Your task to perform on an android device: toggle pop-ups in chrome Image 0: 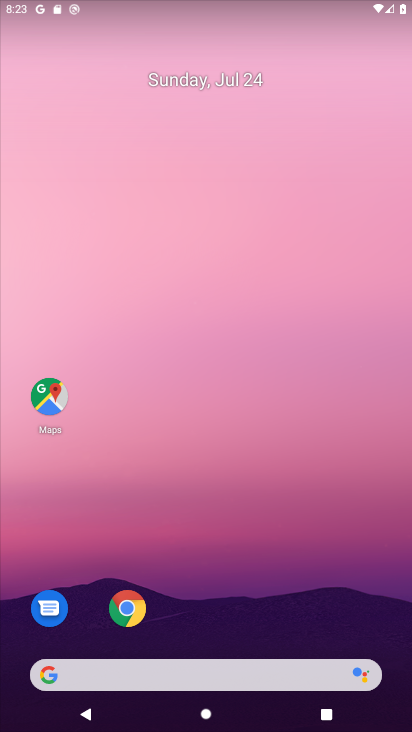
Step 0: click (125, 608)
Your task to perform on an android device: toggle pop-ups in chrome Image 1: 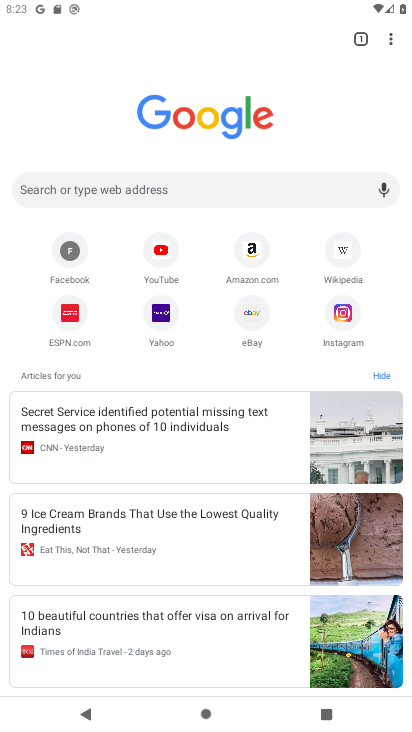
Step 1: click (399, 40)
Your task to perform on an android device: toggle pop-ups in chrome Image 2: 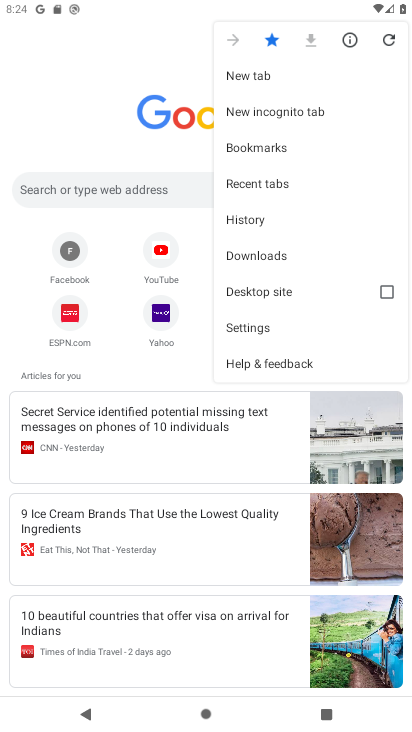
Step 2: click (247, 339)
Your task to perform on an android device: toggle pop-ups in chrome Image 3: 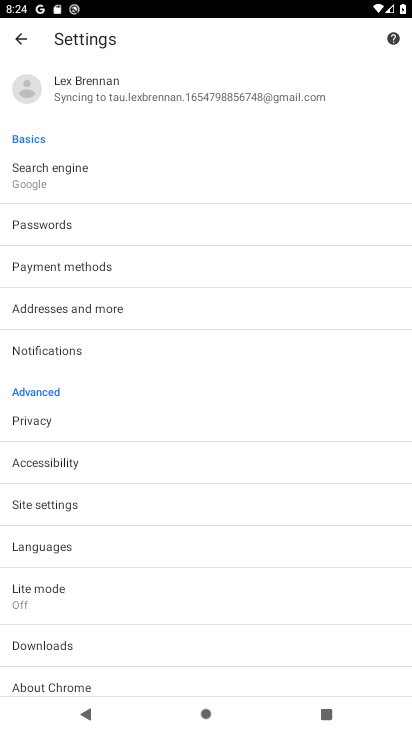
Step 3: click (91, 507)
Your task to perform on an android device: toggle pop-ups in chrome Image 4: 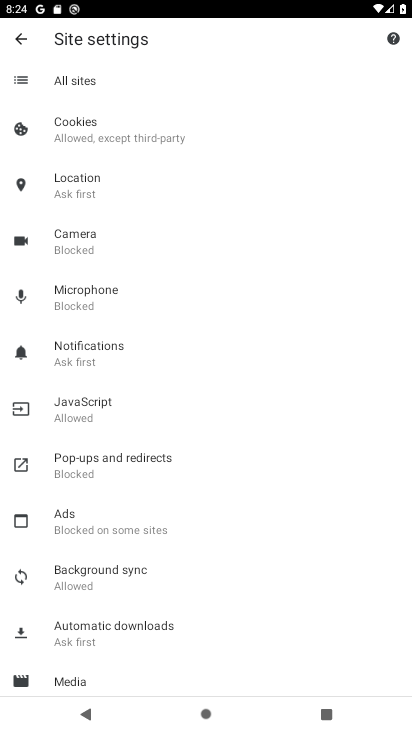
Step 4: click (162, 454)
Your task to perform on an android device: toggle pop-ups in chrome Image 5: 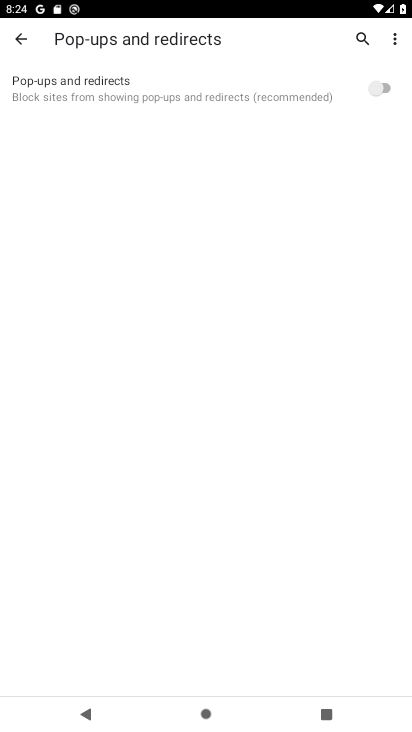
Step 5: click (384, 102)
Your task to perform on an android device: toggle pop-ups in chrome Image 6: 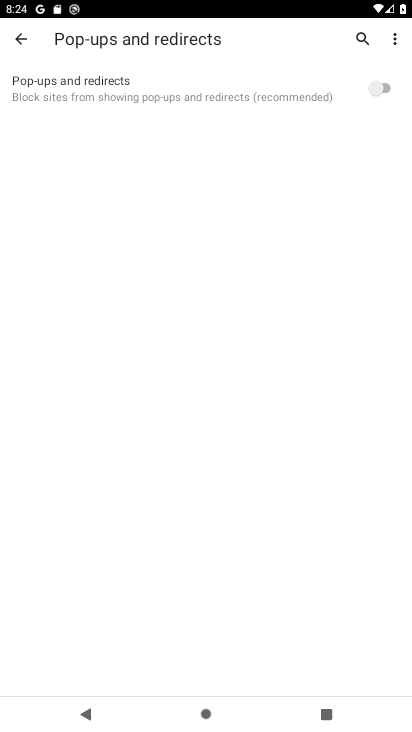
Step 6: click (384, 102)
Your task to perform on an android device: toggle pop-ups in chrome Image 7: 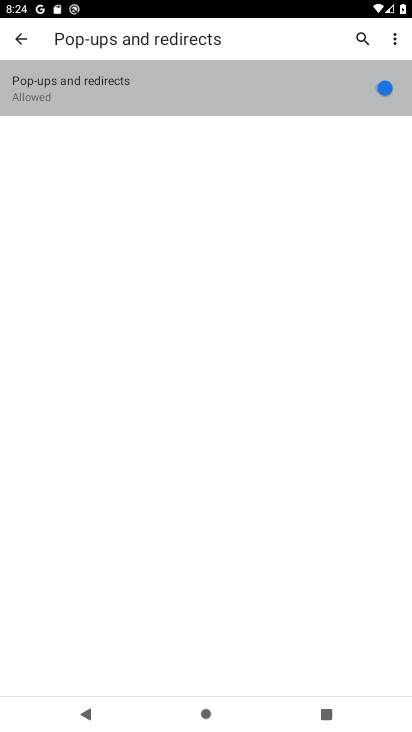
Step 7: click (384, 102)
Your task to perform on an android device: toggle pop-ups in chrome Image 8: 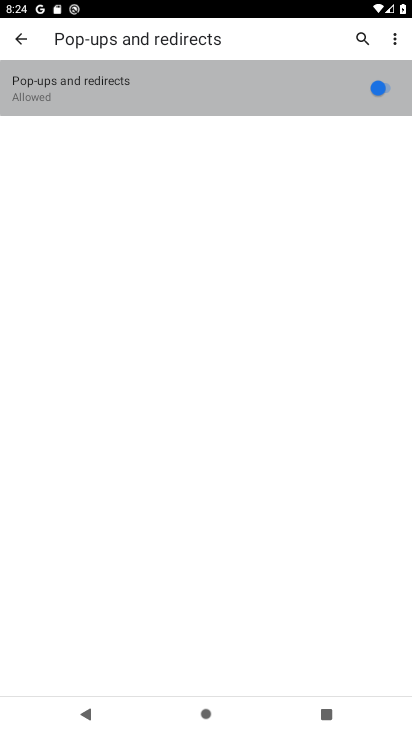
Step 8: click (384, 102)
Your task to perform on an android device: toggle pop-ups in chrome Image 9: 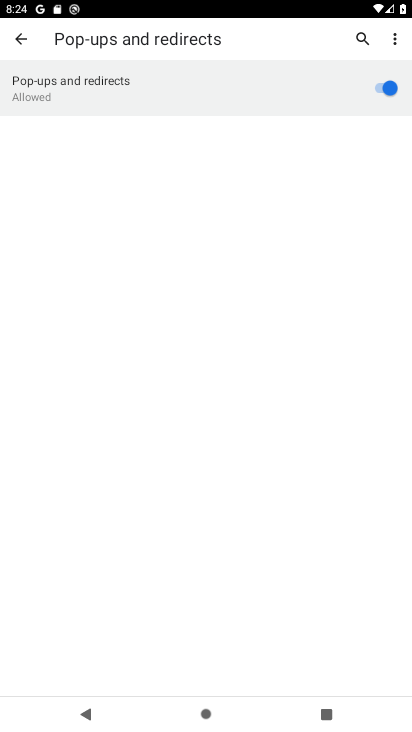
Step 9: click (384, 102)
Your task to perform on an android device: toggle pop-ups in chrome Image 10: 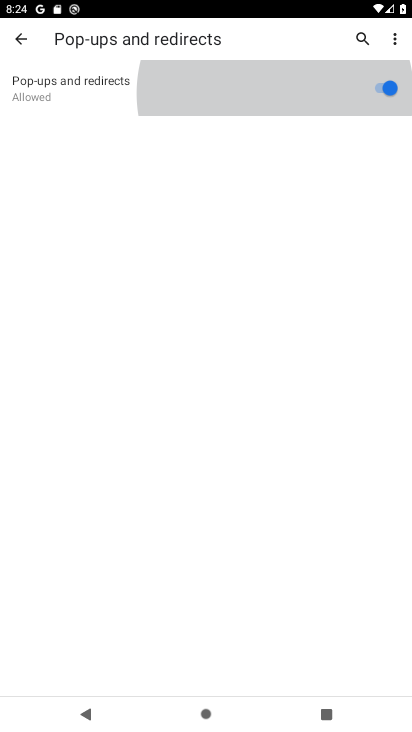
Step 10: click (384, 102)
Your task to perform on an android device: toggle pop-ups in chrome Image 11: 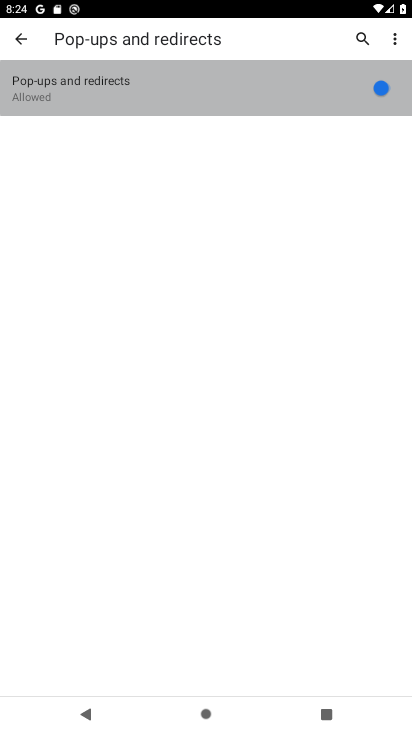
Step 11: click (384, 102)
Your task to perform on an android device: toggle pop-ups in chrome Image 12: 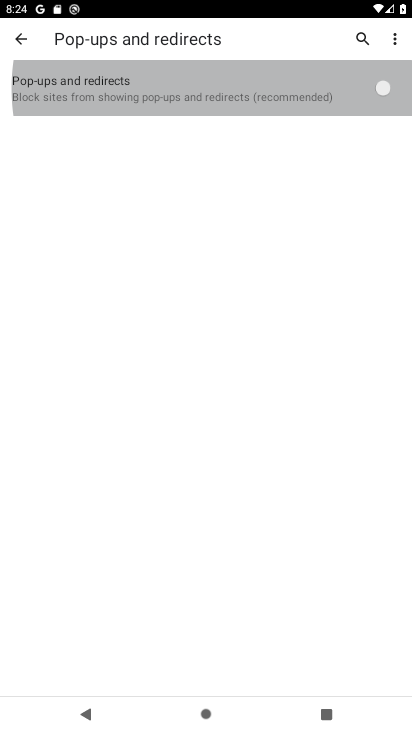
Step 12: click (384, 102)
Your task to perform on an android device: toggle pop-ups in chrome Image 13: 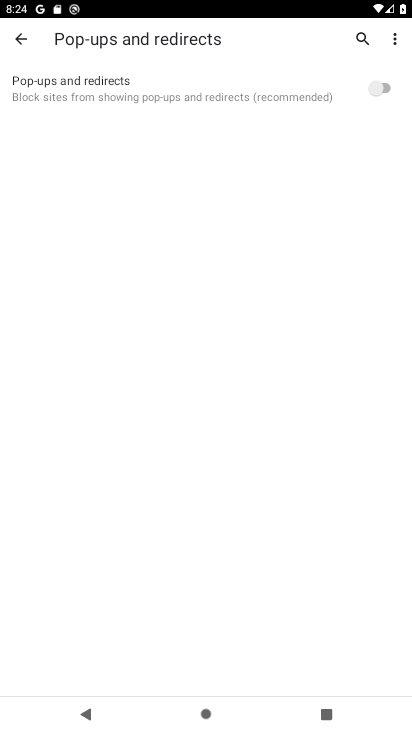
Step 13: task complete